Your task to perform on an android device: turn on showing notifications on the lock screen Image 0: 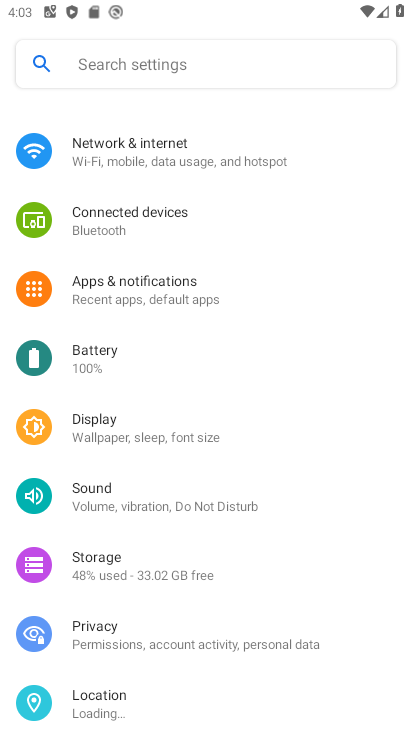
Step 0: press home button
Your task to perform on an android device: turn on showing notifications on the lock screen Image 1: 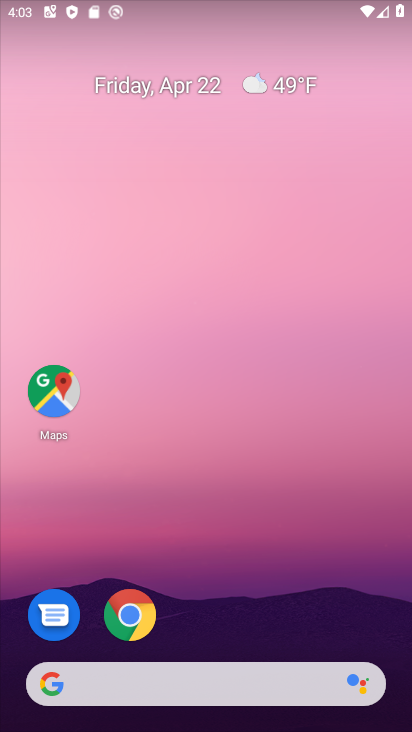
Step 1: drag from (211, 716) to (209, 73)
Your task to perform on an android device: turn on showing notifications on the lock screen Image 2: 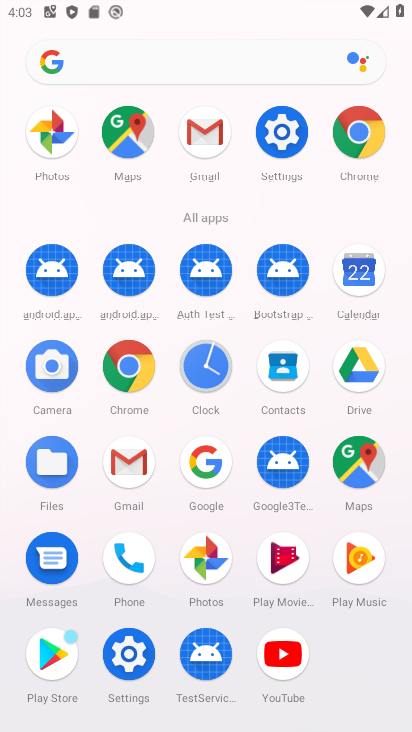
Step 2: click (281, 125)
Your task to perform on an android device: turn on showing notifications on the lock screen Image 3: 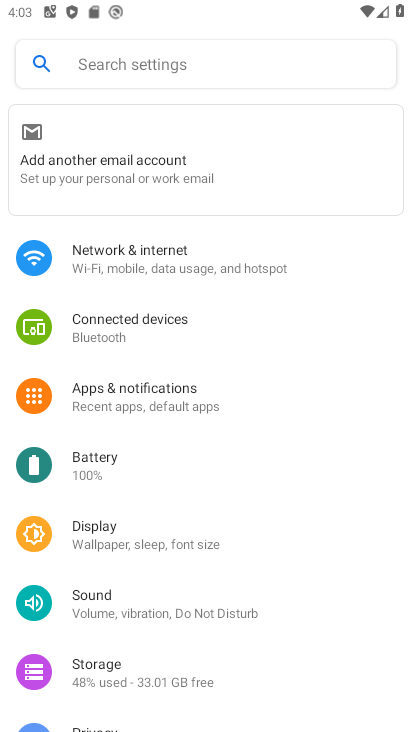
Step 3: click (131, 387)
Your task to perform on an android device: turn on showing notifications on the lock screen Image 4: 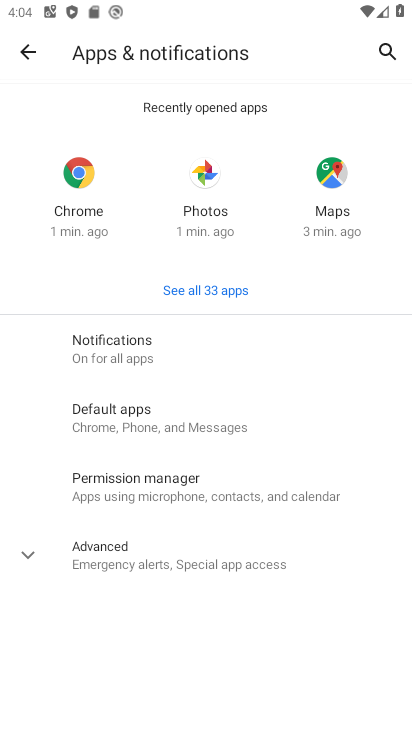
Step 4: click (105, 338)
Your task to perform on an android device: turn on showing notifications on the lock screen Image 5: 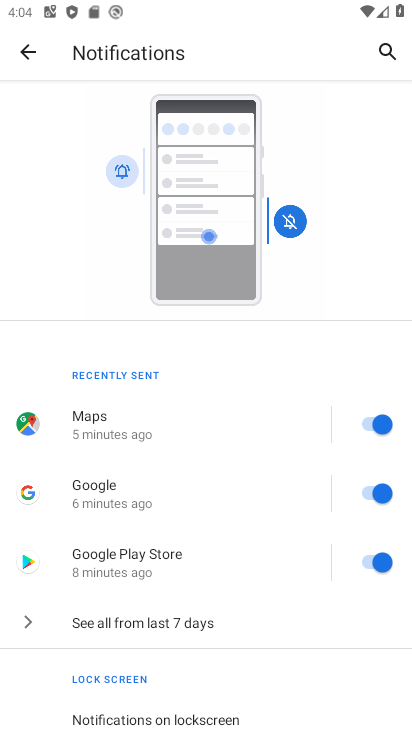
Step 5: drag from (137, 696) to (152, 347)
Your task to perform on an android device: turn on showing notifications on the lock screen Image 6: 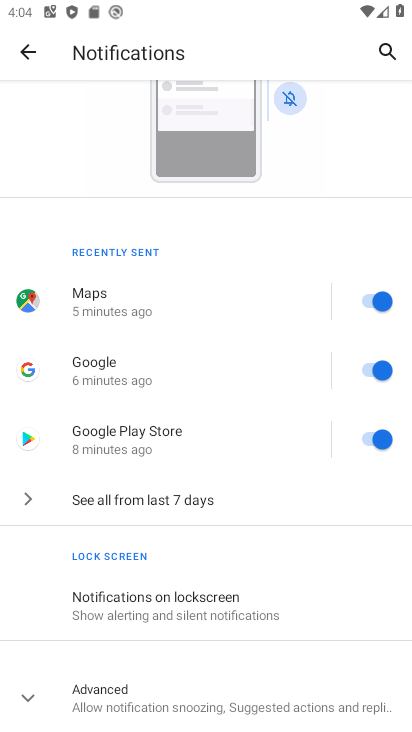
Step 6: click (177, 600)
Your task to perform on an android device: turn on showing notifications on the lock screen Image 7: 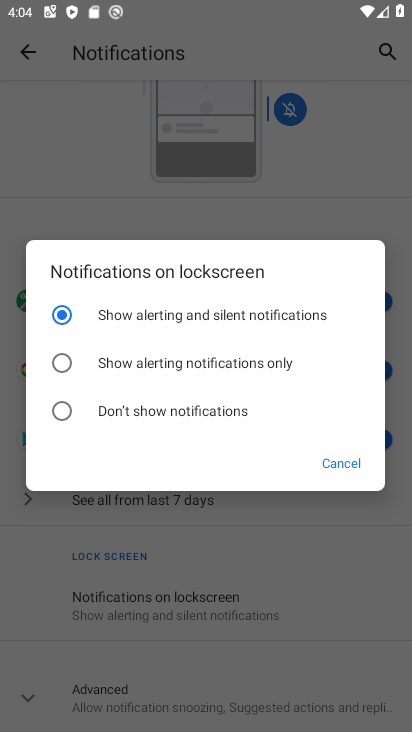
Step 7: click (338, 463)
Your task to perform on an android device: turn on showing notifications on the lock screen Image 8: 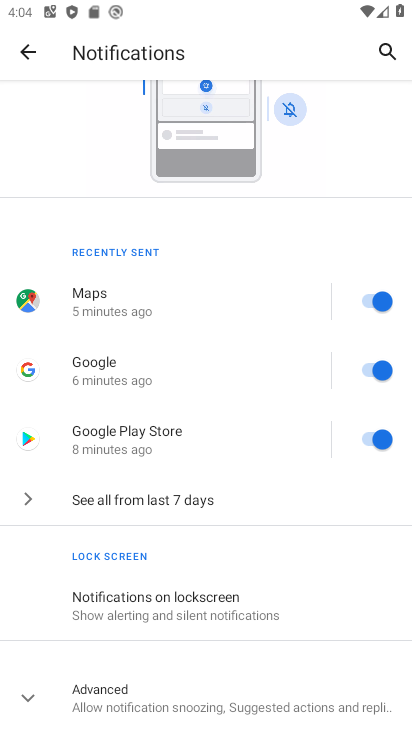
Step 8: task complete